Your task to perform on an android device: Show me the best rated vacuum on Walmart. Image 0: 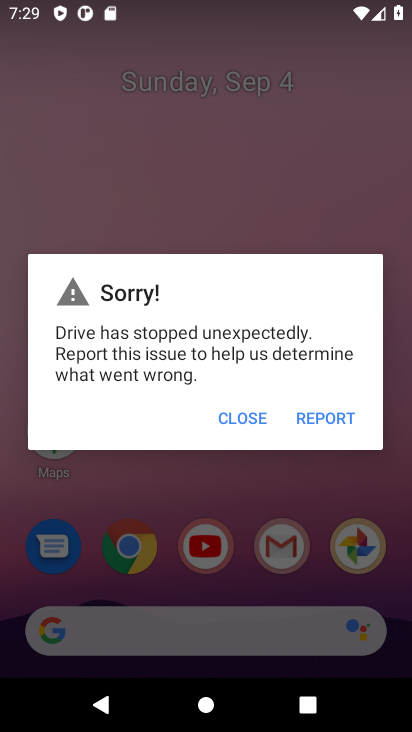
Step 0: press home button
Your task to perform on an android device: Show me the best rated vacuum on Walmart. Image 1: 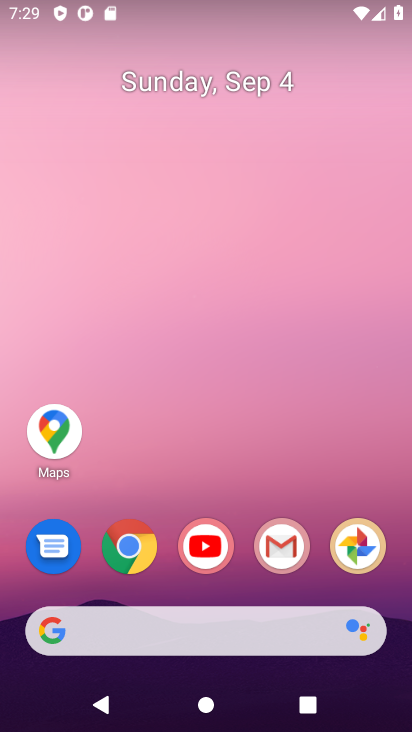
Step 1: click (136, 550)
Your task to perform on an android device: Show me the best rated vacuum on Walmart. Image 2: 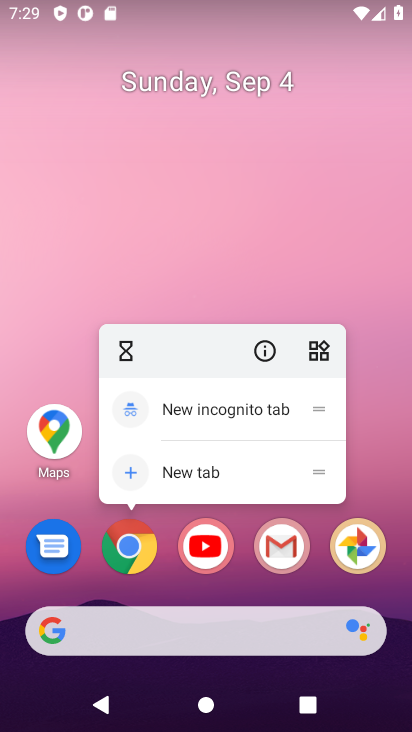
Step 2: click (136, 550)
Your task to perform on an android device: Show me the best rated vacuum on Walmart. Image 3: 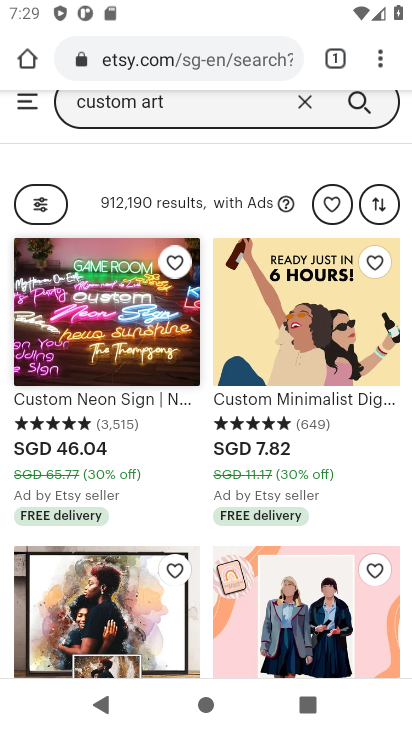
Step 3: click (167, 60)
Your task to perform on an android device: Show me the best rated vacuum on Walmart. Image 4: 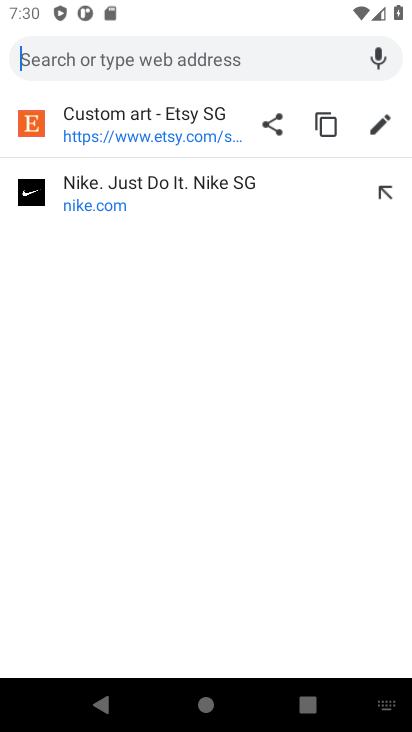
Step 4: type "Walmart"
Your task to perform on an android device: Show me the best rated vacuum on Walmart. Image 5: 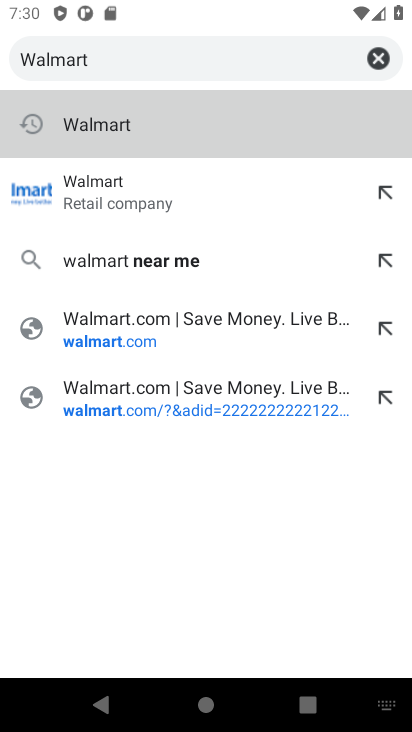
Step 5: click (85, 129)
Your task to perform on an android device: Show me the best rated vacuum on Walmart. Image 6: 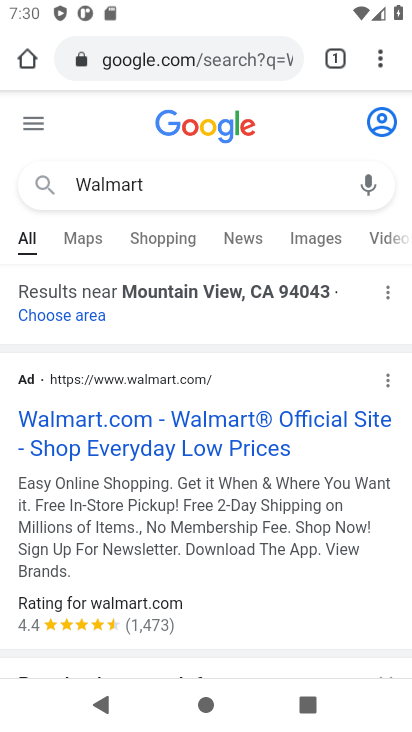
Step 6: click (67, 414)
Your task to perform on an android device: Show me the best rated vacuum on Walmart. Image 7: 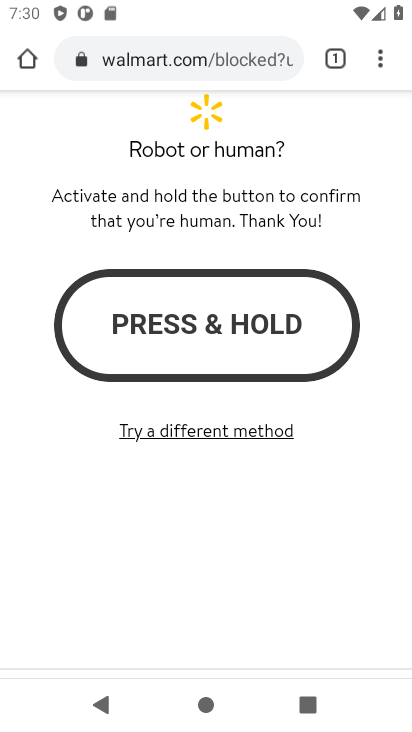
Step 7: click (185, 331)
Your task to perform on an android device: Show me the best rated vacuum on Walmart. Image 8: 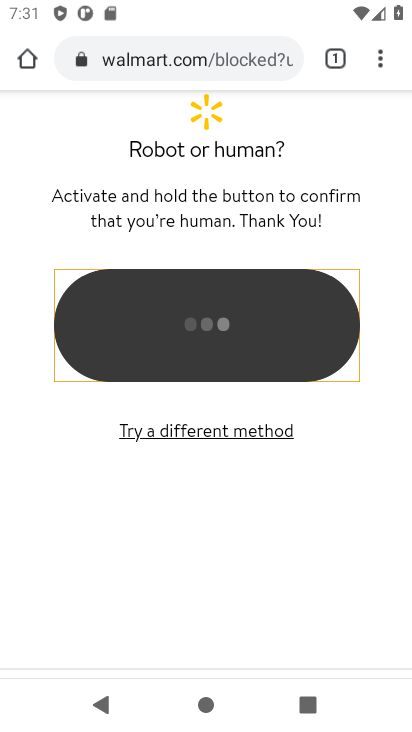
Step 8: click (208, 429)
Your task to perform on an android device: Show me the best rated vacuum on Walmart. Image 9: 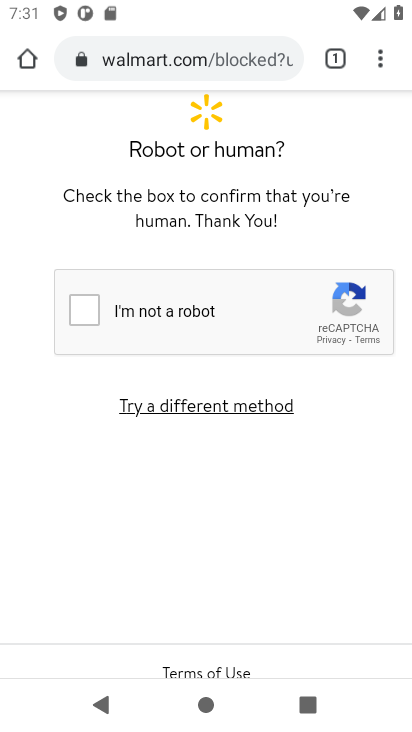
Step 9: click (91, 308)
Your task to perform on an android device: Show me the best rated vacuum on Walmart. Image 10: 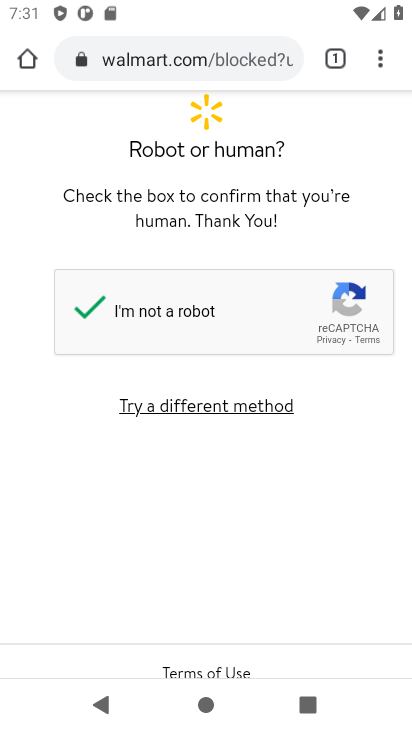
Step 10: drag from (211, 447) to (206, 314)
Your task to perform on an android device: Show me the best rated vacuum on Walmart. Image 11: 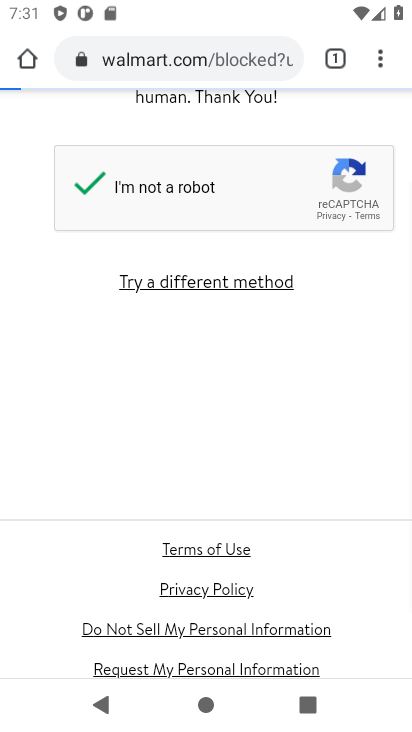
Step 11: drag from (194, 461) to (199, 309)
Your task to perform on an android device: Show me the best rated vacuum on Walmart. Image 12: 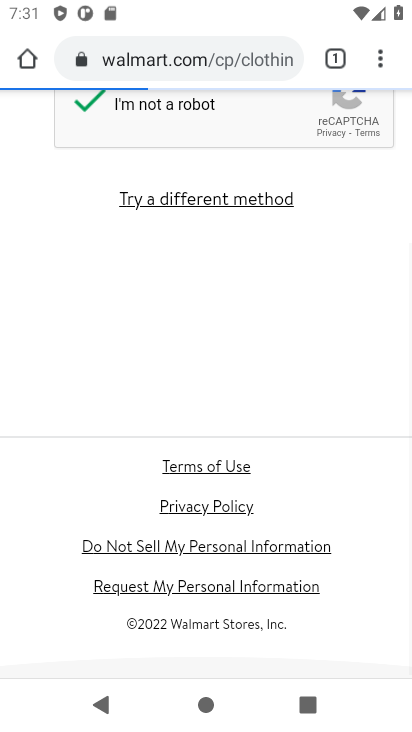
Step 12: drag from (199, 295) to (231, 603)
Your task to perform on an android device: Show me the best rated vacuum on Walmart. Image 13: 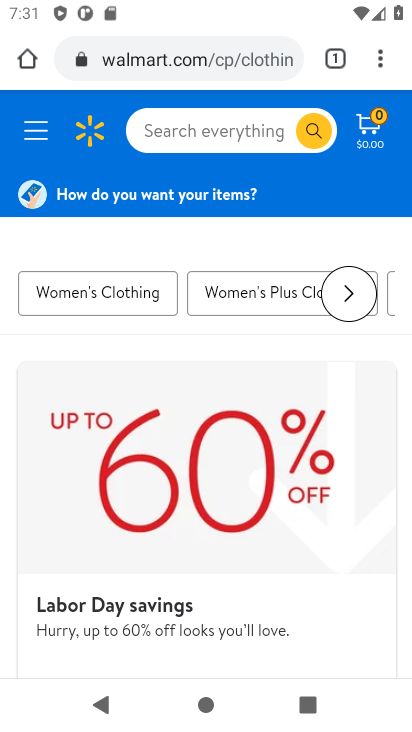
Step 13: click (199, 134)
Your task to perform on an android device: Show me the best rated vacuum on Walmart. Image 14: 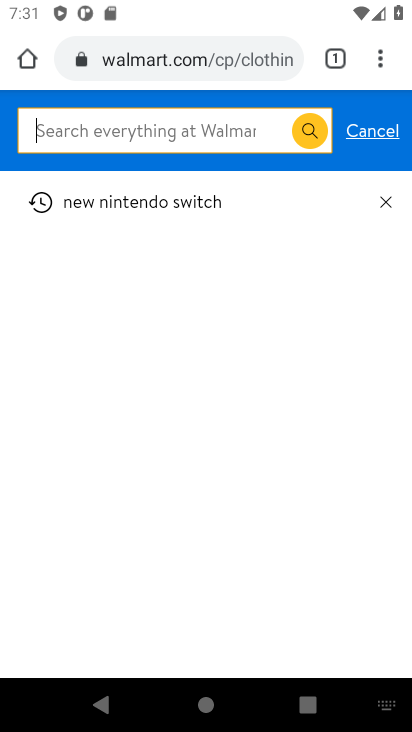
Step 14: type "best rated vacuum"
Your task to perform on an android device: Show me the best rated vacuum on Walmart. Image 15: 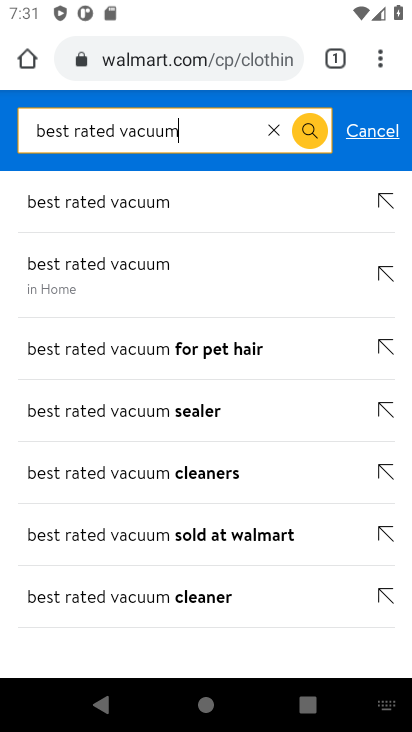
Step 15: click (114, 210)
Your task to perform on an android device: Show me the best rated vacuum on Walmart. Image 16: 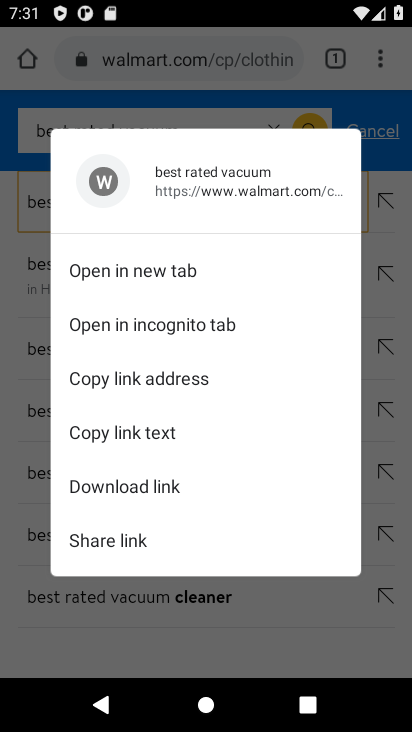
Step 16: click (39, 200)
Your task to perform on an android device: Show me the best rated vacuum on Walmart. Image 17: 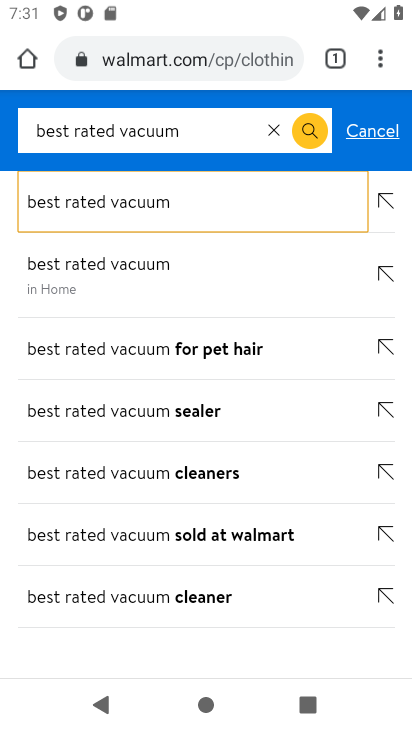
Step 17: click (42, 206)
Your task to perform on an android device: Show me the best rated vacuum on Walmart. Image 18: 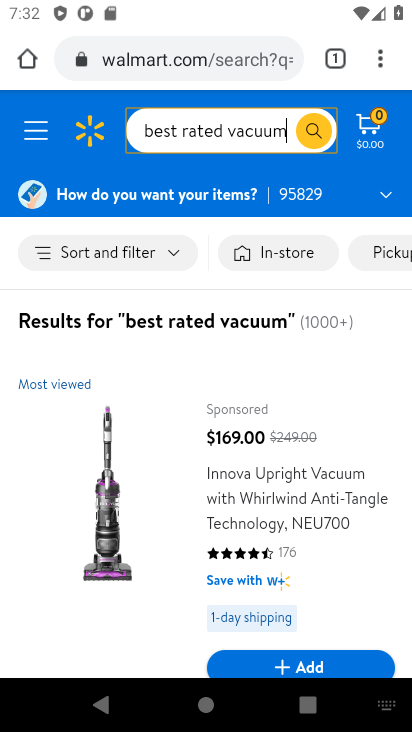
Step 18: task complete